Your task to perform on an android device: Open battery settings Image 0: 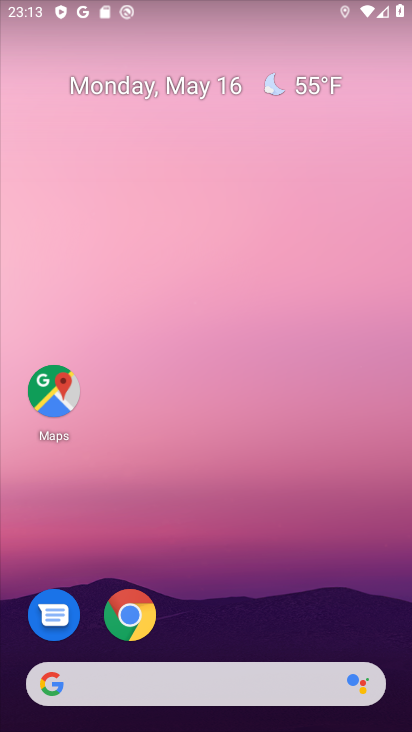
Step 0: drag from (229, 646) to (294, 14)
Your task to perform on an android device: Open battery settings Image 1: 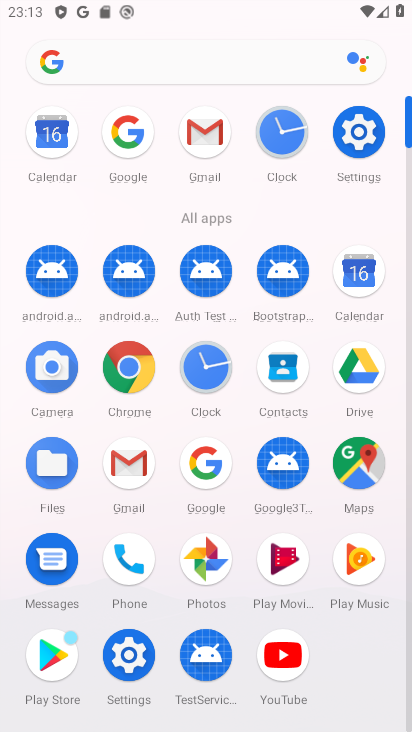
Step 1: click (355, 125)
Your task to perform on an android device: Open battery settings Image 2: 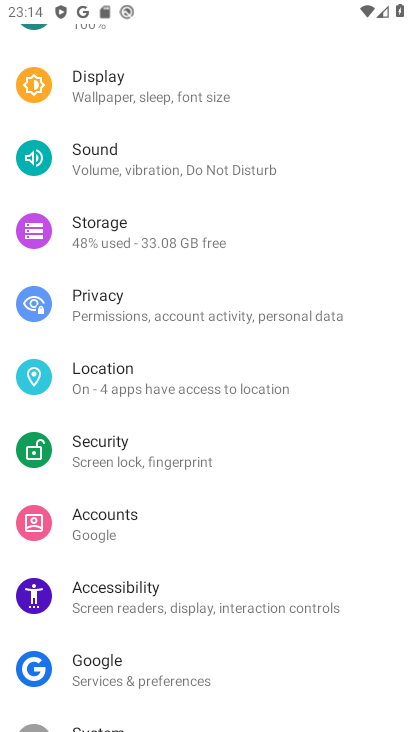
Step 2: drag from (154, 579) to (157, 45)
Your task to perform on an android device: Open battery settings Image 3: 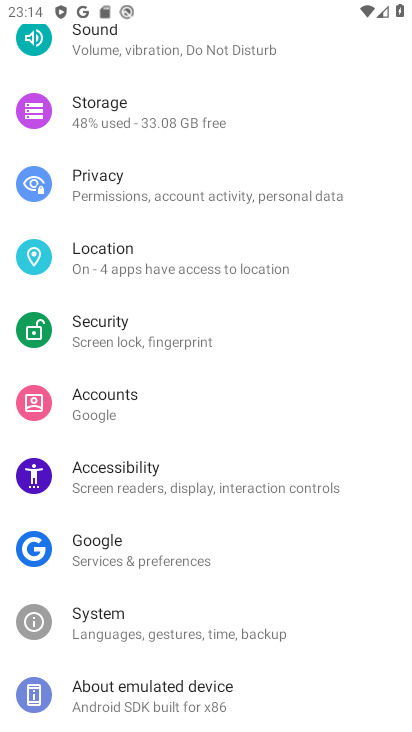
Step 3: drag from (153, 212) to (168, 651)
Your task to perform on an android device: Open battery settings Image 4: 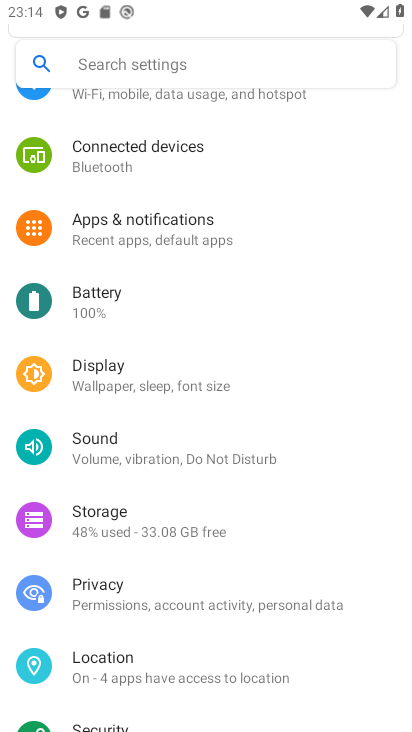
Step 4: click (99, 287)
Your task to perform on an android device: Open battery settings Image 5: 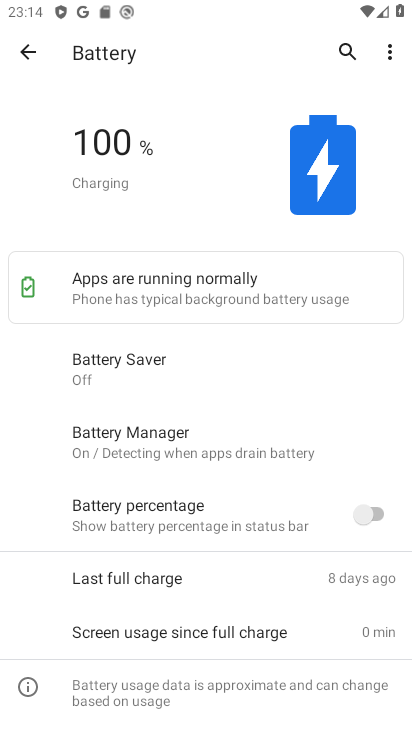
Step 5: task complete